Your task to perform on an android device: open app "Google Play Games" Image 0: 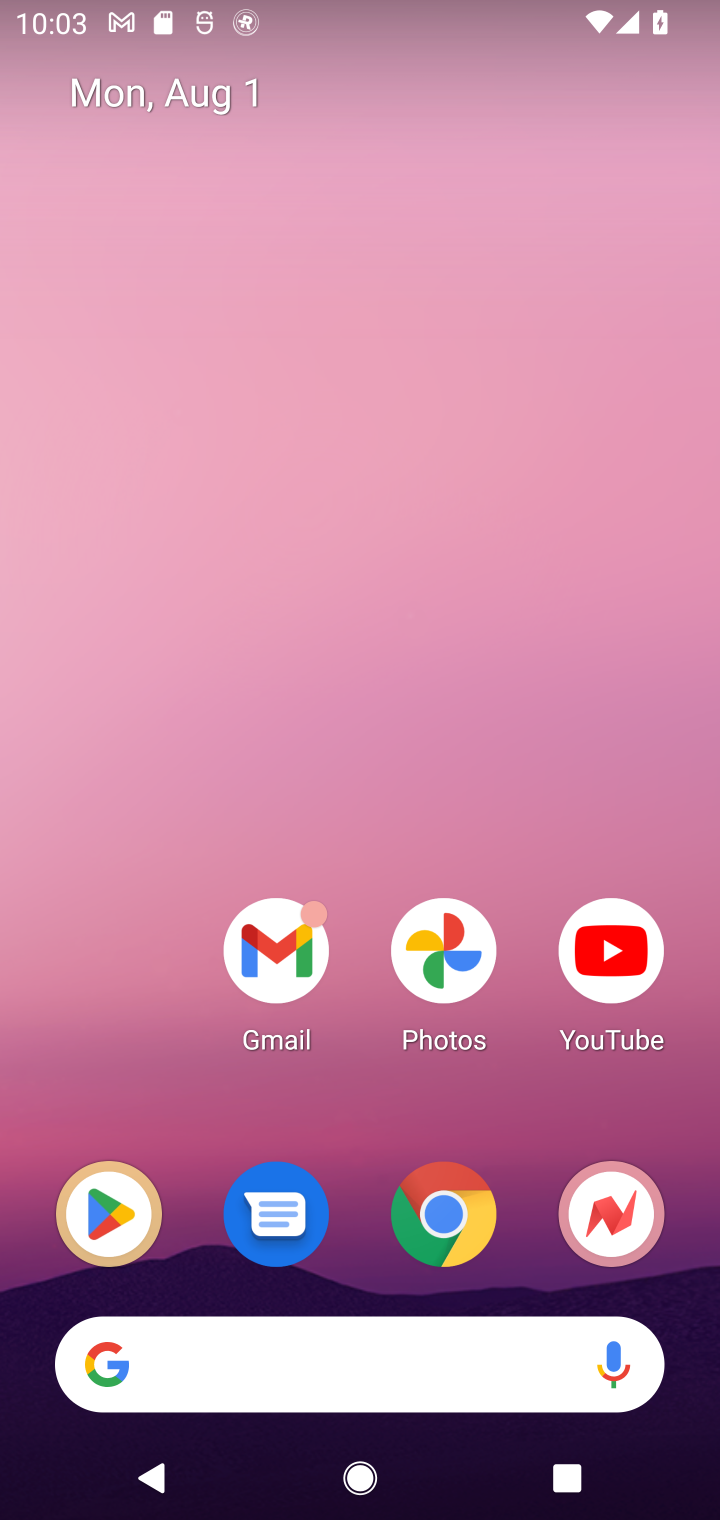
Step 0: press home button
Your task to perform on an android device: open app "Google Play Games" Image 1: 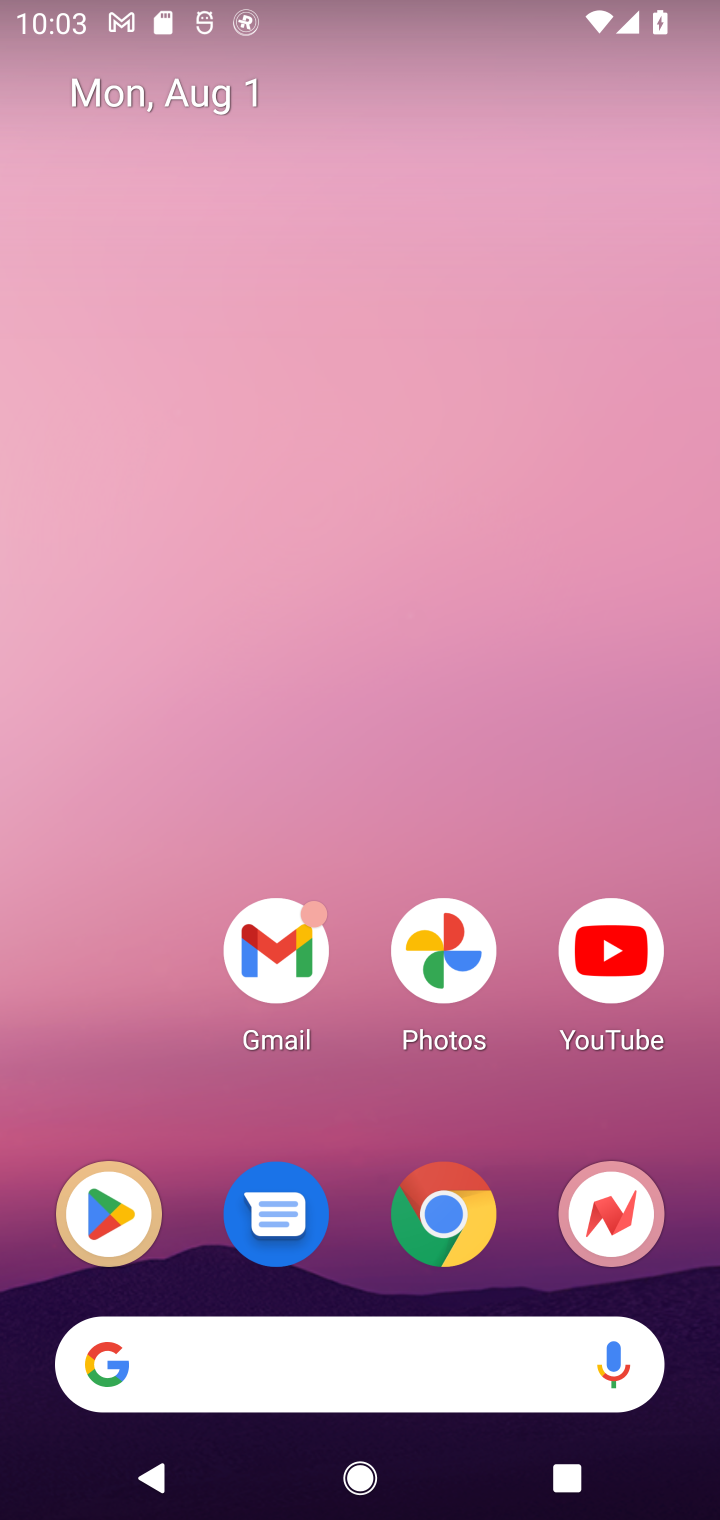
Step 1: click (88, 1203)
Your task to perform on an android device: open app "Google Play Games" Image 2: 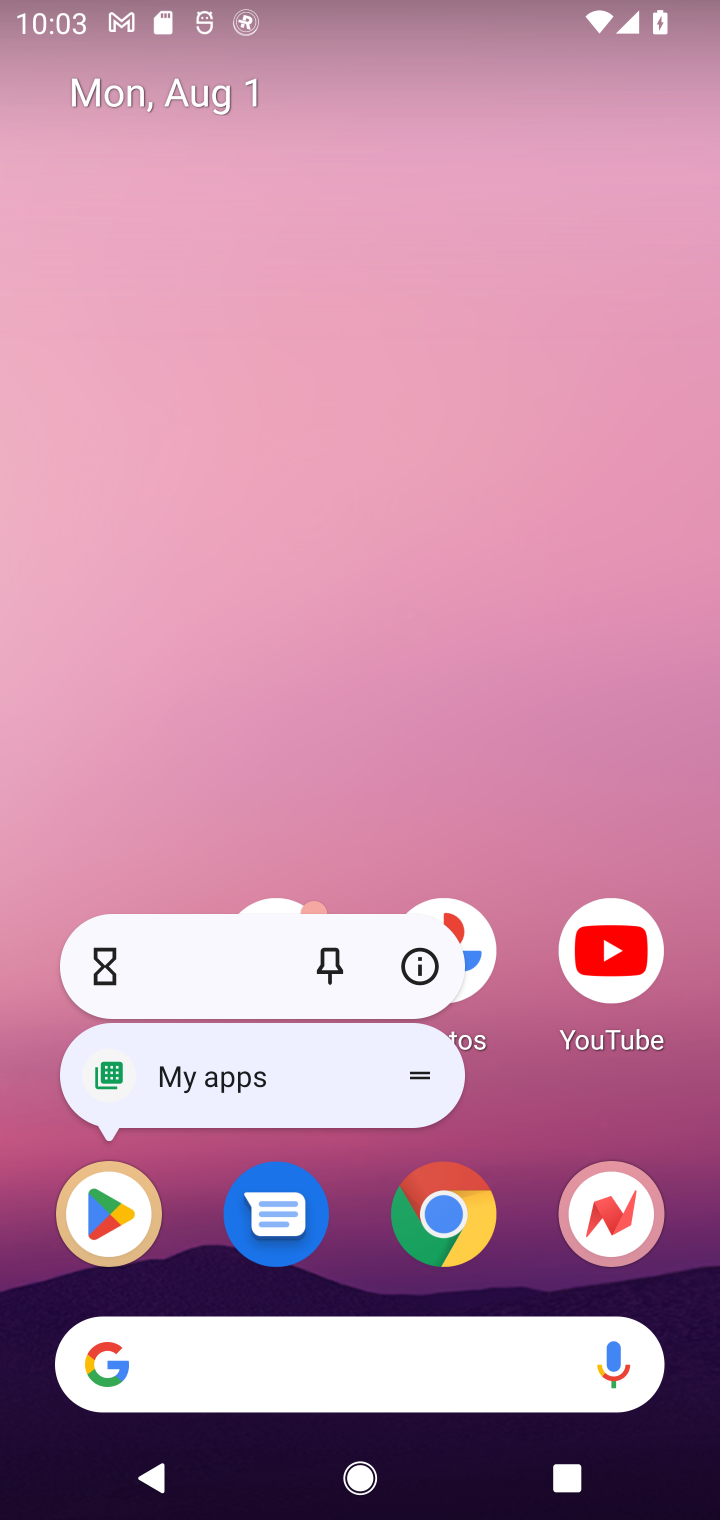
Step 2: click (94, 1213)
Your task to perform on an android device: open app "Google Play Games" Image 3: 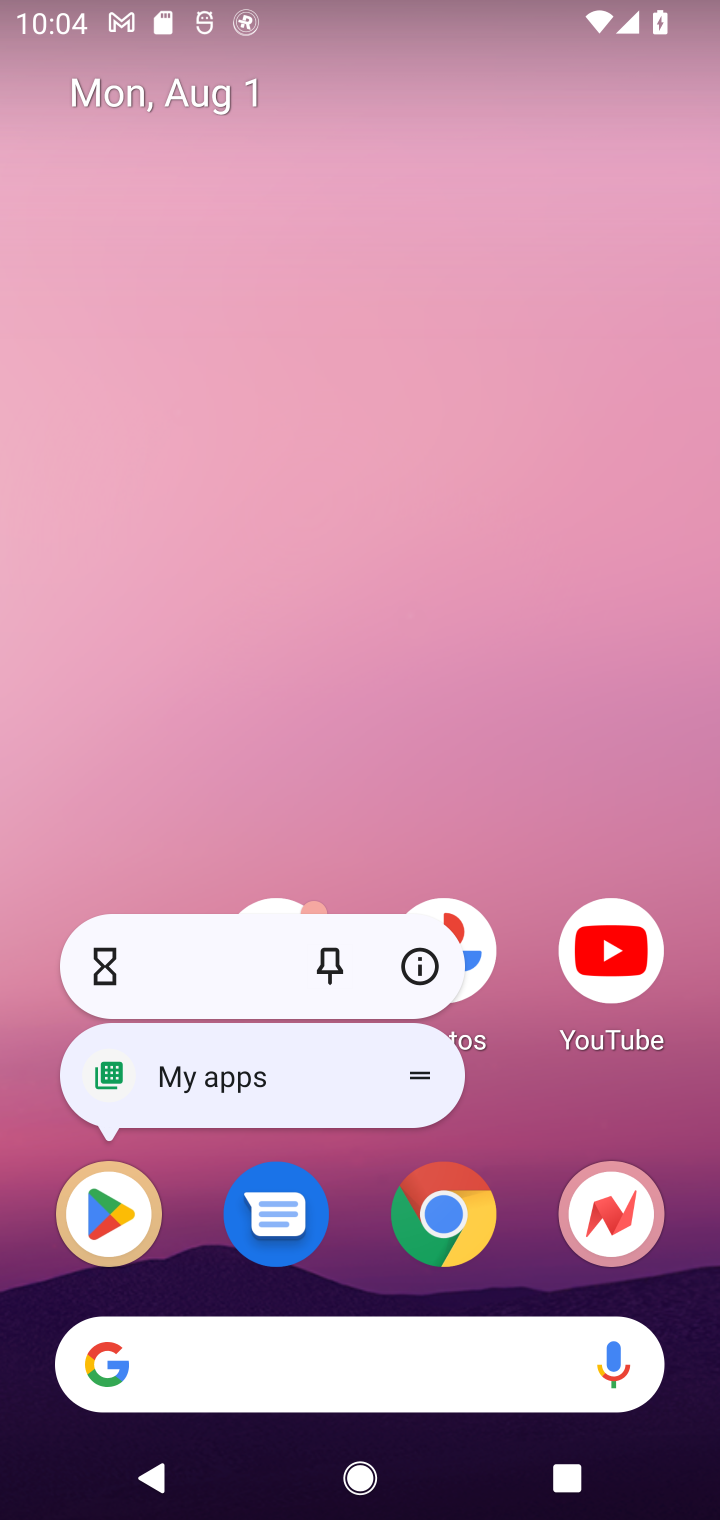
Step 3: click (94, 1213)
Your task to perform on an android device: open app "Google Play Games" Image 4: 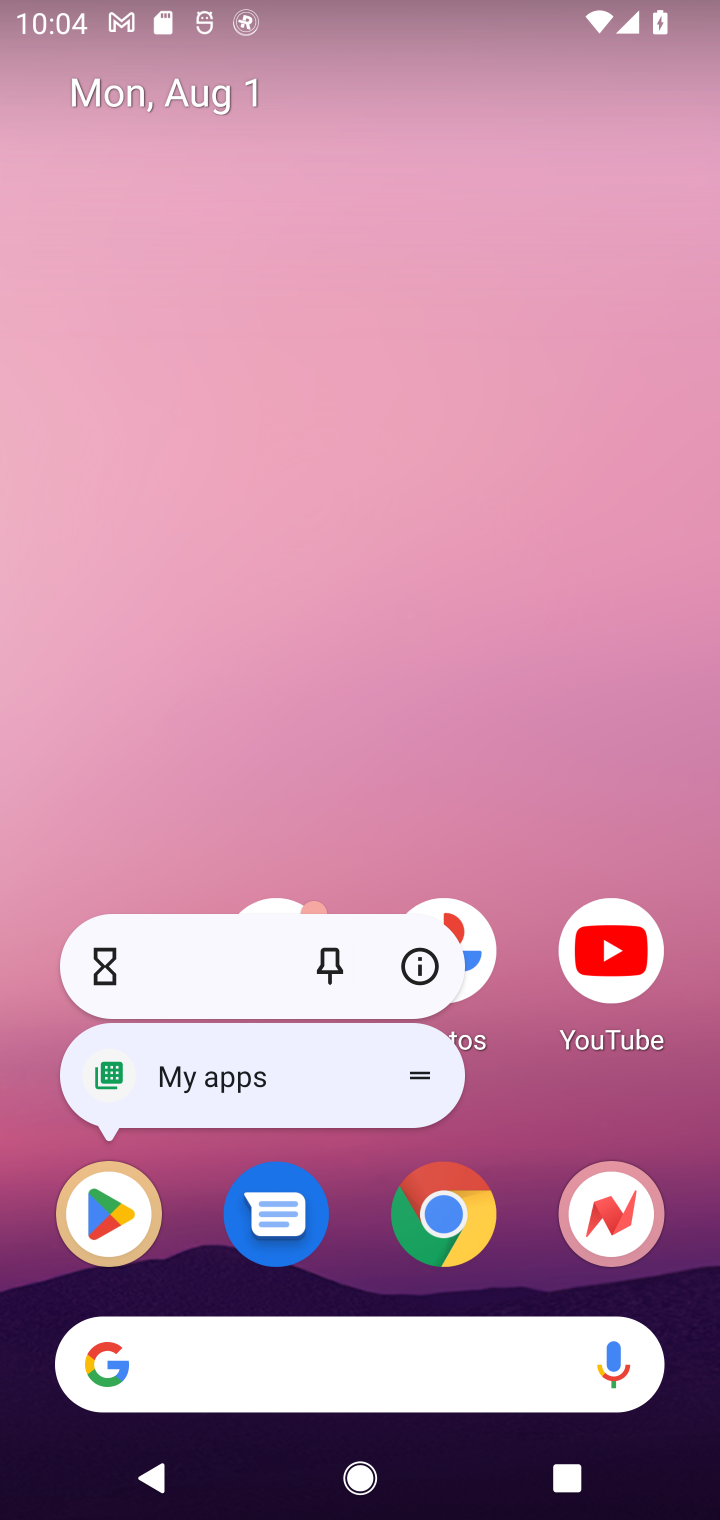
Step 4: click (94, 1211)
Your task to perform on an android device: open app "Google Play Games" Image 5: 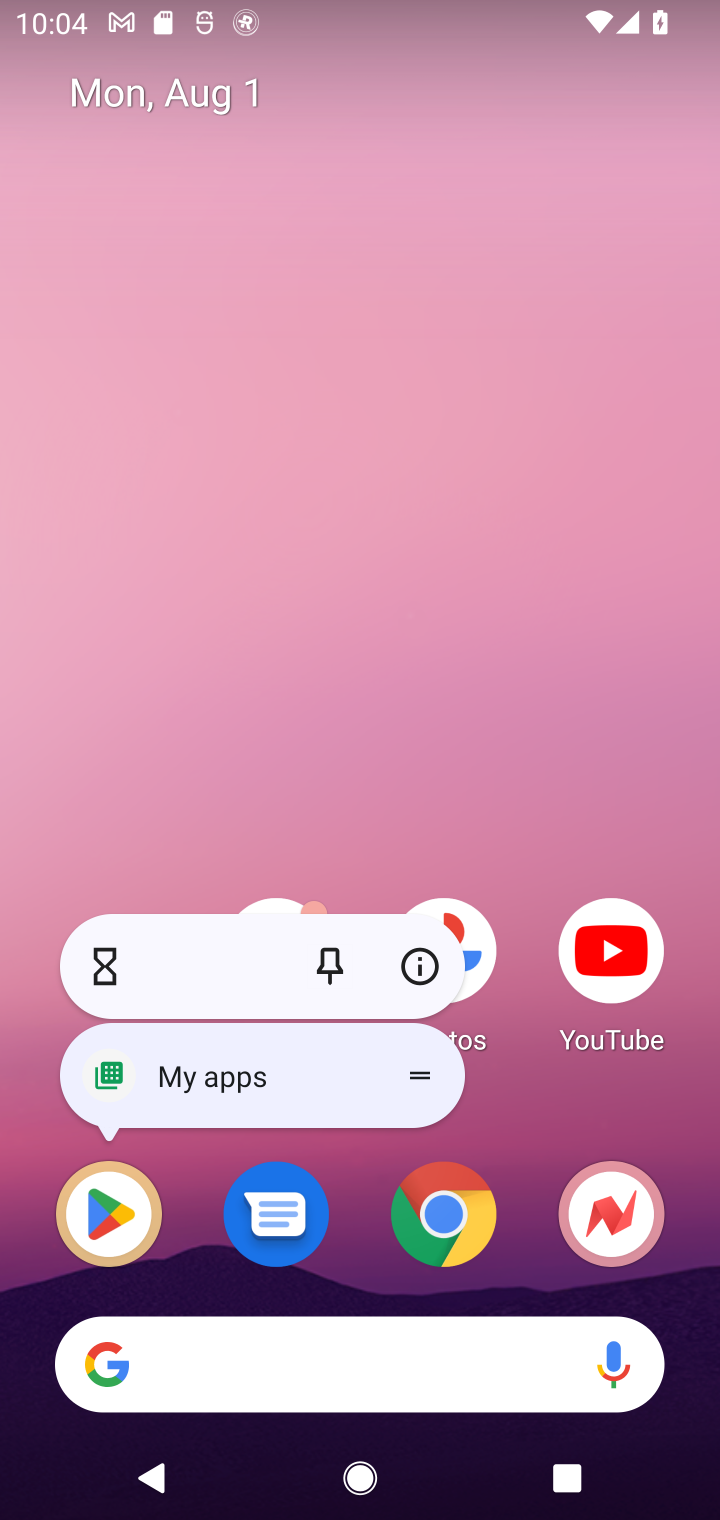
Step 5: click (94, 1211)
Your task to perform on an android device: open app "Google Play Games" Image 6: 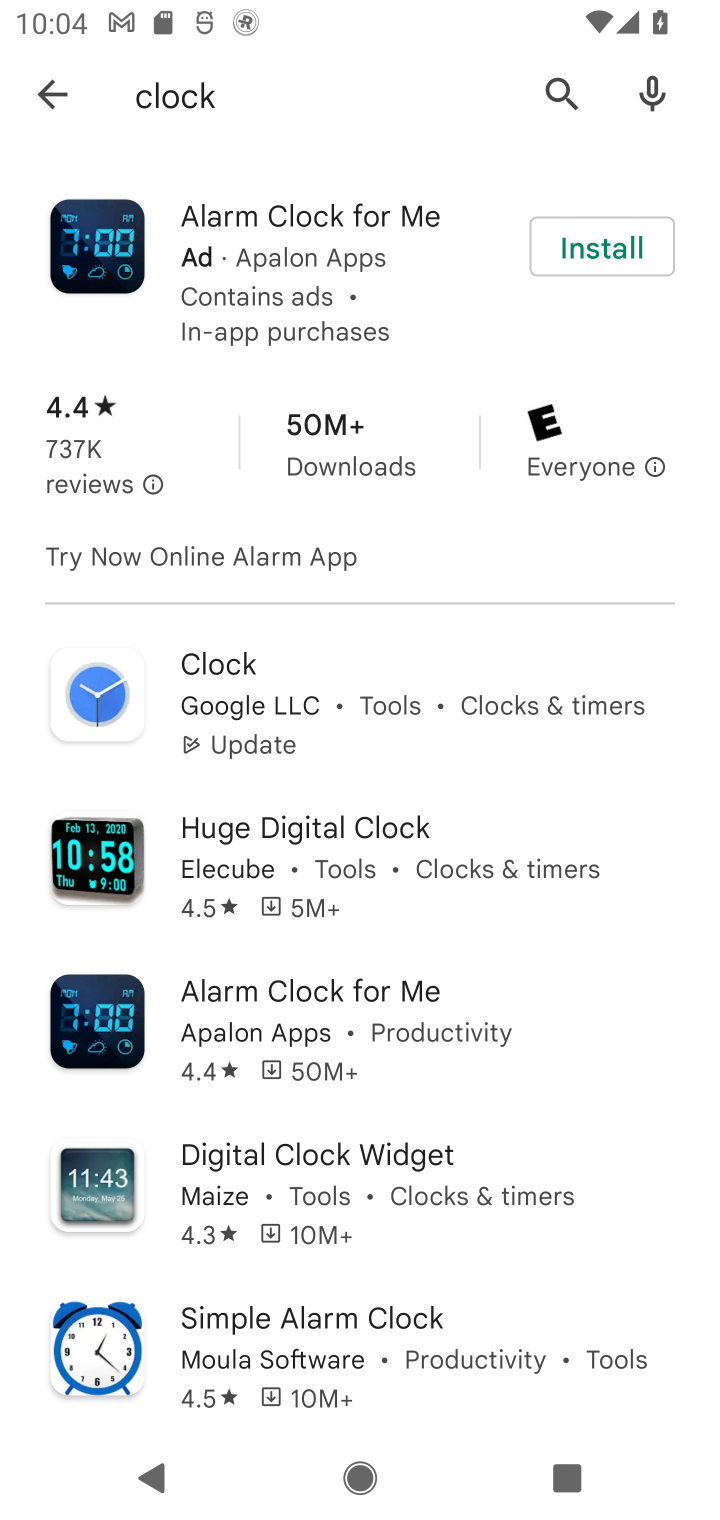
Step 6: click (553, 91)
Your task to perform on an android device: open app "Google Play Games" Image 7: 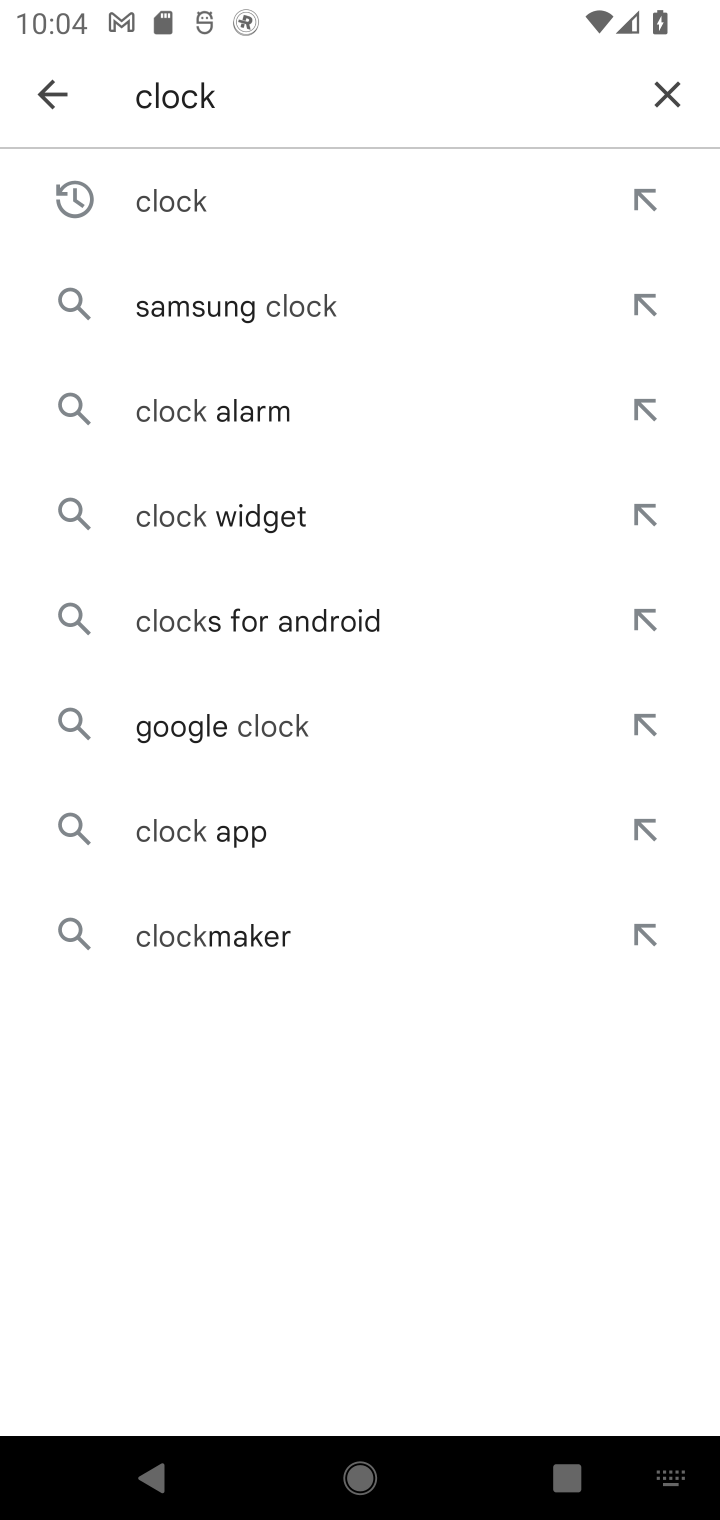
Step 7: click (655, 79)
Your task to perform on an android device: open app "Google Play Games" Image 8: 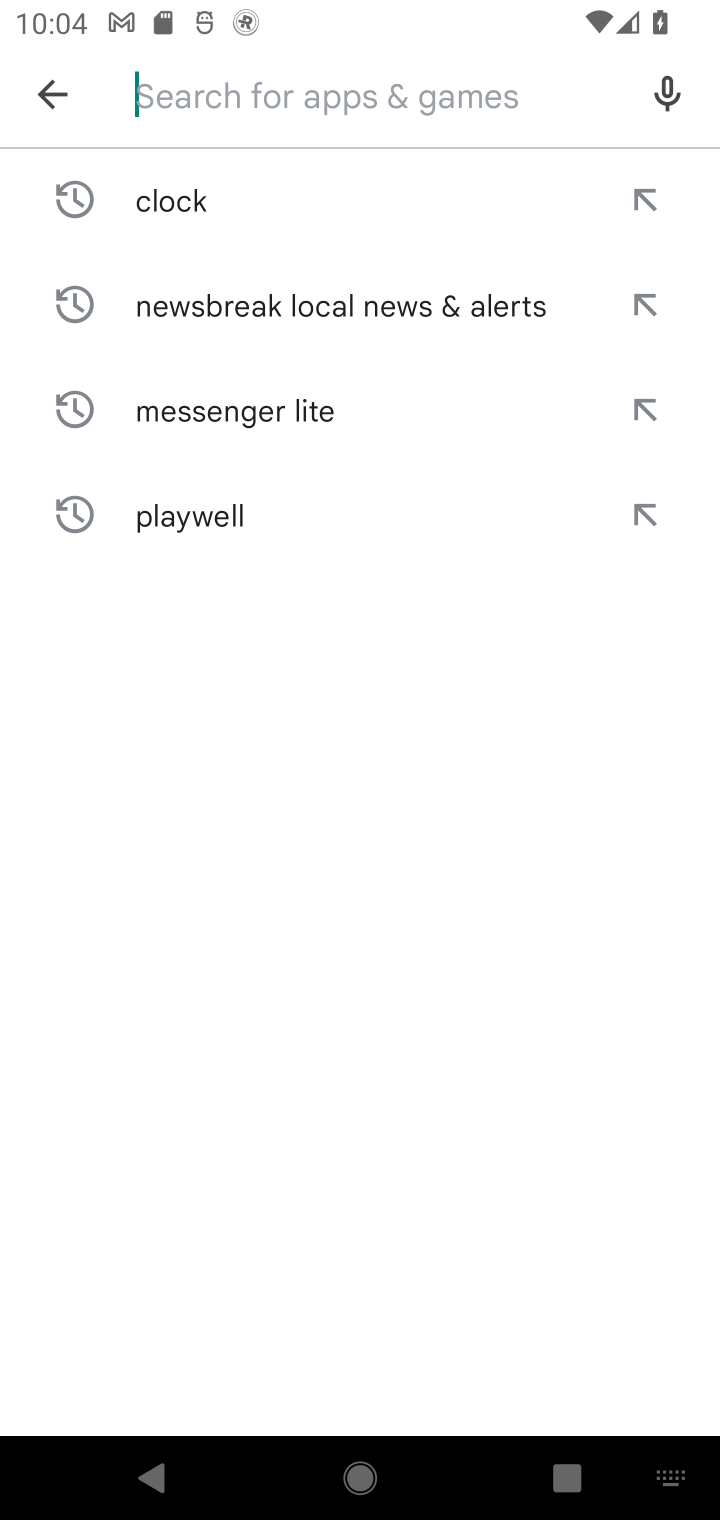
Step 8: type "Google Play Games"
Your task to perform on an android device: open app "Google Play Games" Image 9: 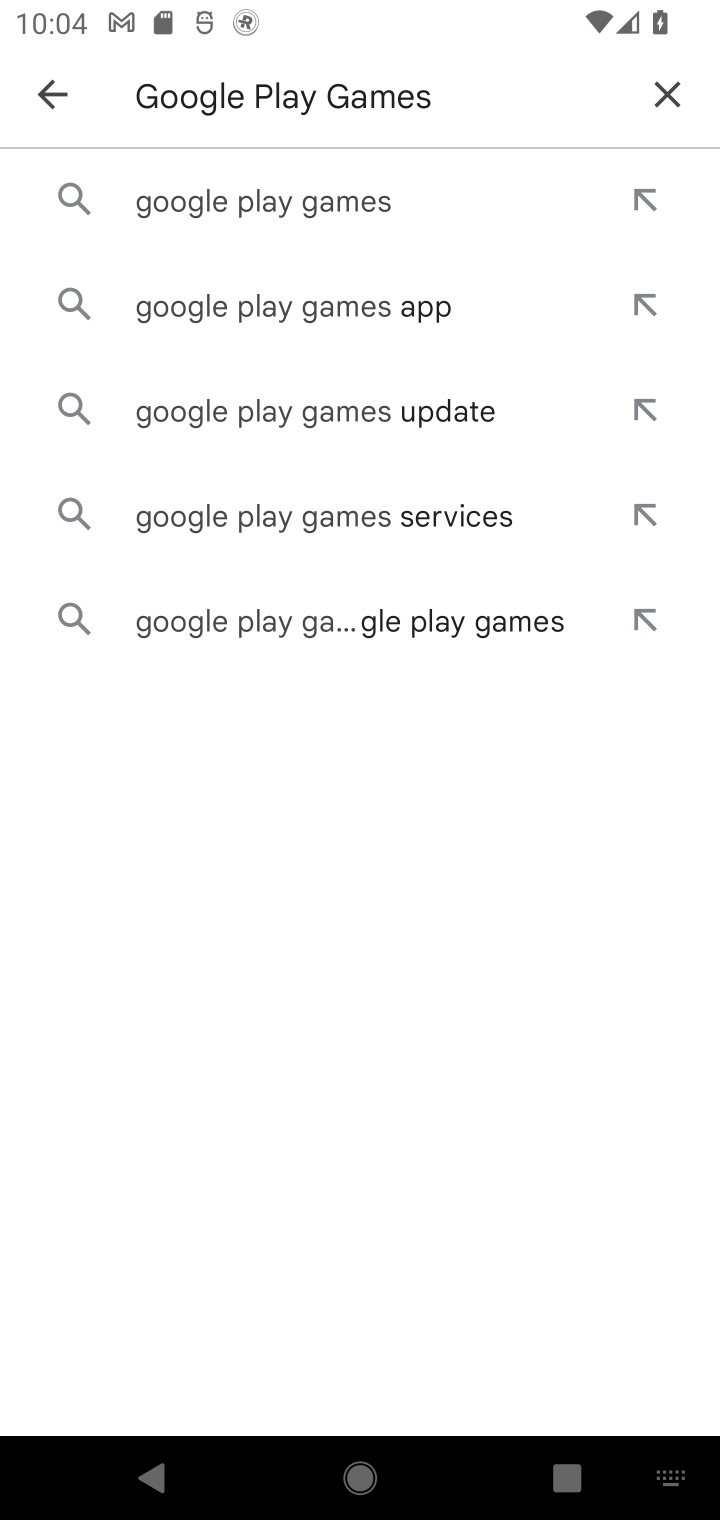
Step 9: click (332, 195)
Your task to perform on an android device: open app "Google Play Games" Image 10: 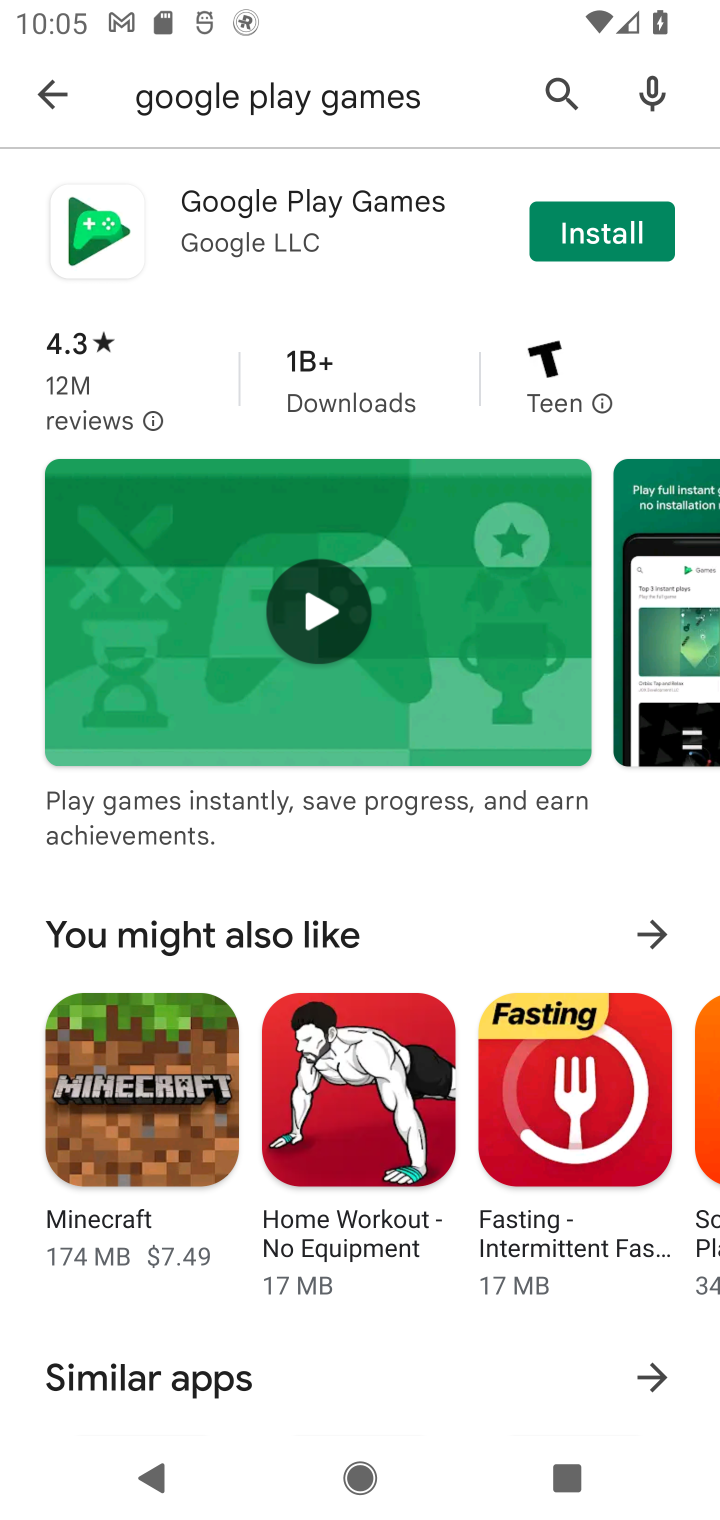
Step 10: task complete